Your task to perform on an android device: Open the calendar and show me this week's events Image 0: 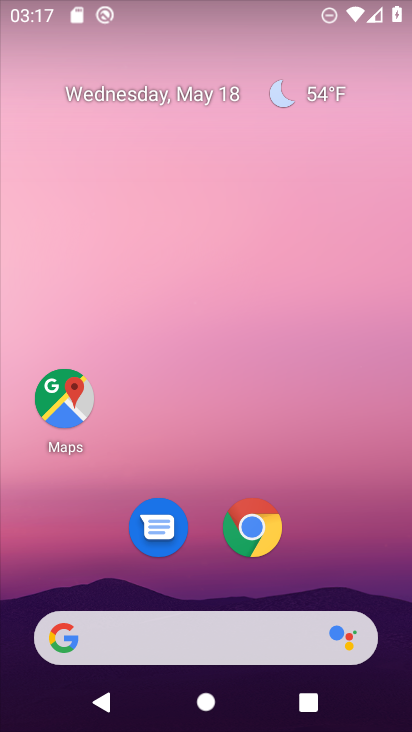
Step 0: drag from (224, 585) to (193, 19)
Your task to perform on an android device: Open the calendar and show me this week's events Image 1: 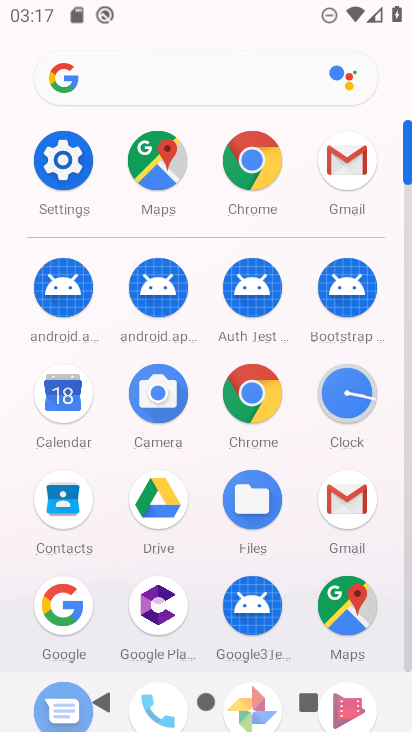
Step 1: click (73, 415)
Your task to perform on an android device: Open the calendar and show me this week's events Image 2: 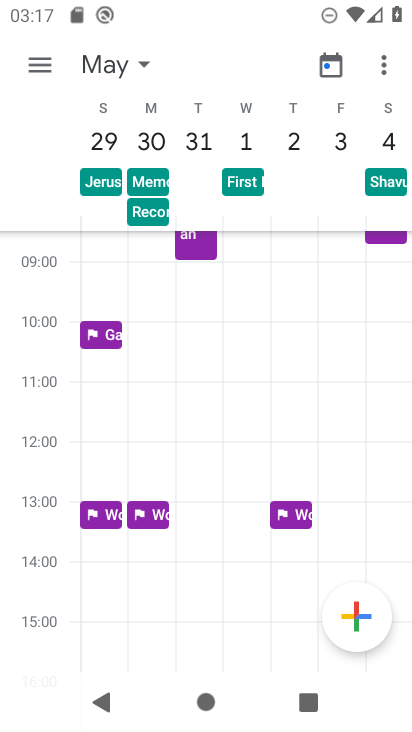
Step 2: click (339, 75)
Your task to perform on an android device: Open the calendar and show me this week's events Image 3: 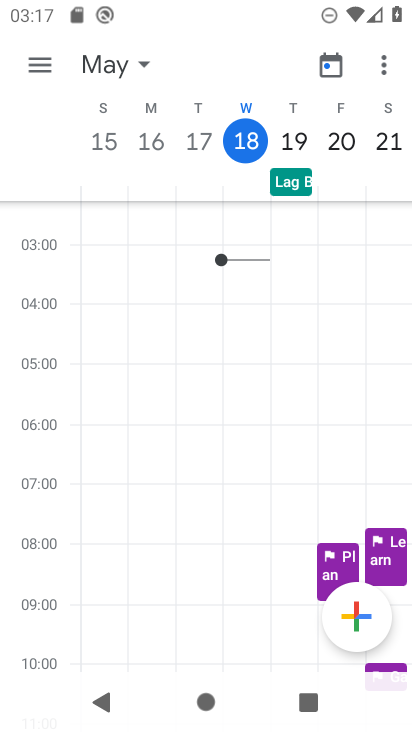
Step 3: task complete